Your task to perform on an android device: Go to settings Image 0: 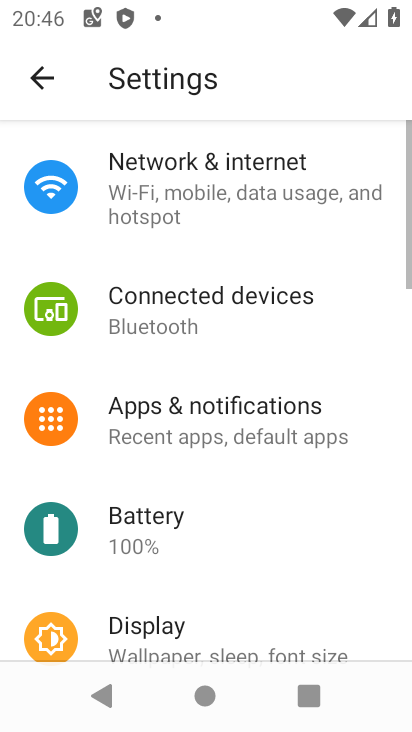
Step 0: drag from (295, 589) to (277, 386)
Your task to perform on an android device: Go to settings Image 1: 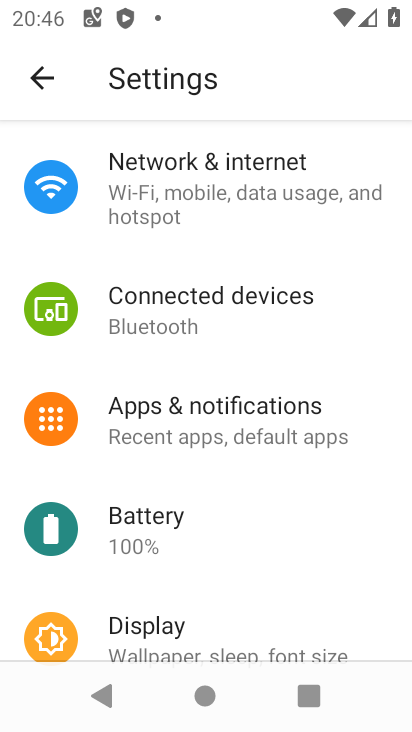
Step 1: task complete